Your task to perform on an android device: Open the calendar and show me this week's events Image 0: 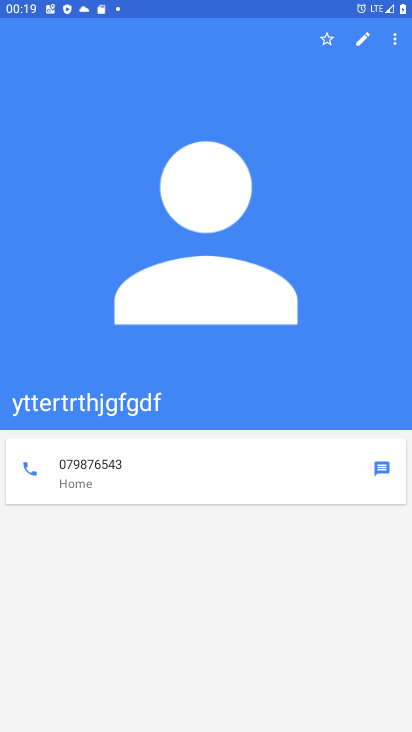
Step 0: press home button
Your task to perform on an android device: Open the calendar and show me this week's events Image 1: 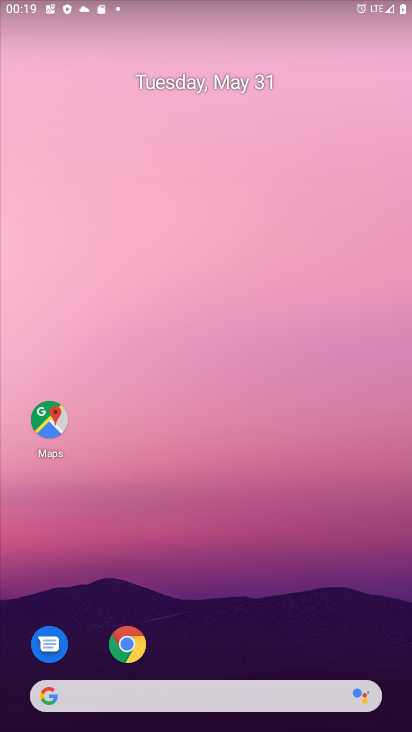
Step 1: drag from (371, 650) to (324, 297)
Your task to perform on an android device: Open the calendar and show me this week's events Image 2: 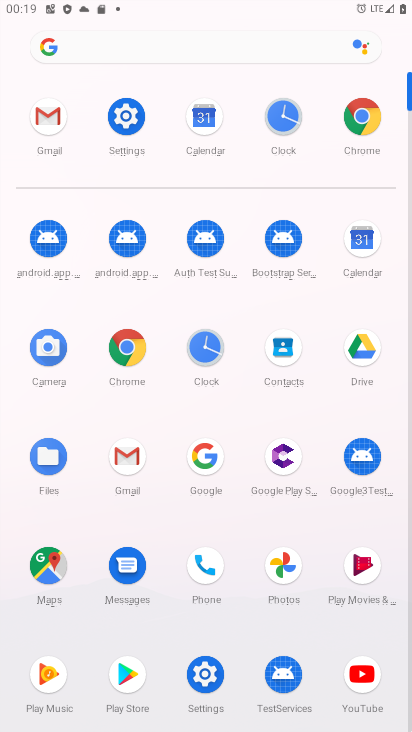
Step 2: click (361, 232)
Your task to perform on an android device: Open the calendar and show me this week's events Image 3: 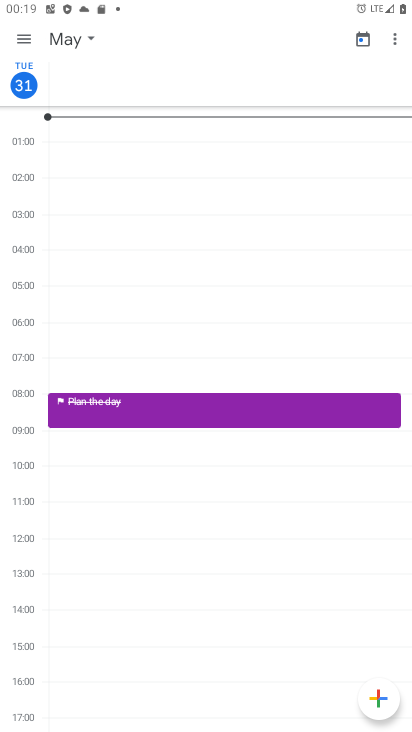
Step 3: click (26, 38)
Your task to perform on an android device: Open the calendar and show me this week's events Image 4: 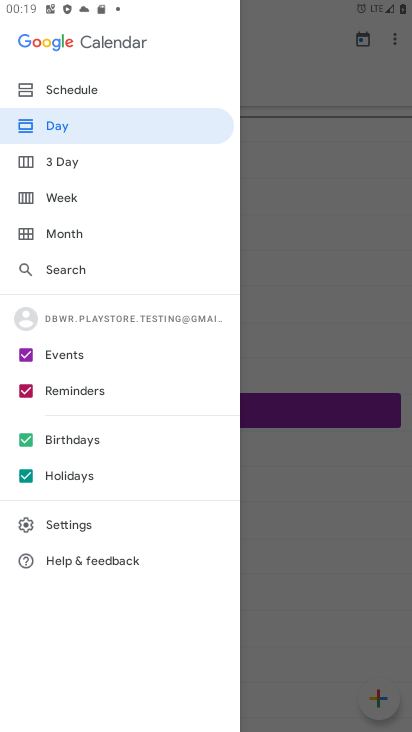
Step 4: click (73, 206)
Your task to perform on an android device: Open the calendar and show me this week's events Image 5: 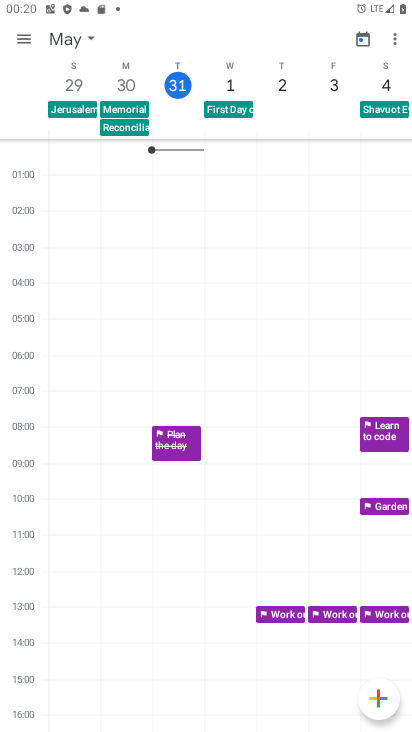
Step 5: task complete